Your task to perform on an android device: turn on the 24-hour format for clock Image 0: 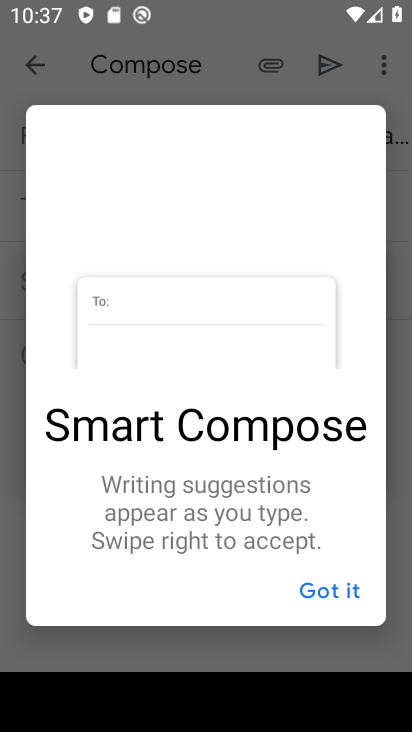
Step 0: press home button
Your task to perform on an android device: turn on the 24-hour format for clock Image 1: 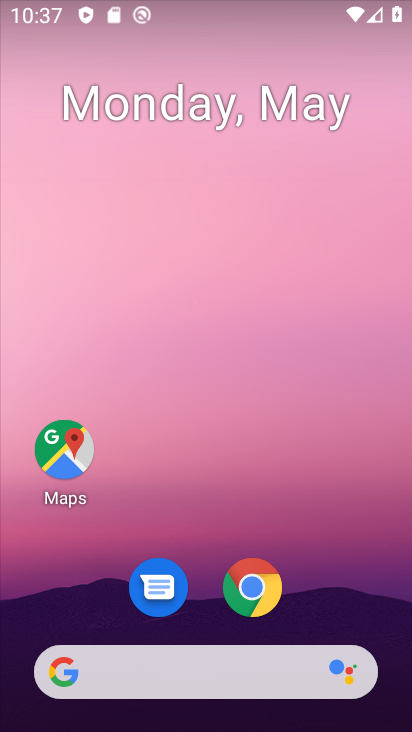
Step 1: drag from (207, 629) to (162, 50)
Your task to perform on an android device: turn on the 24-hour format for clock Image 2: 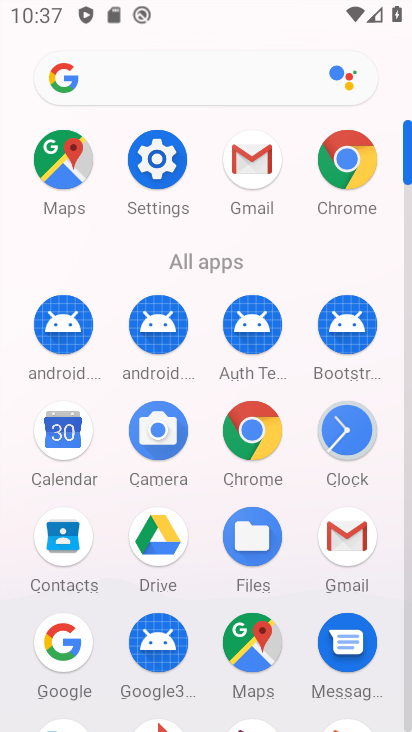
Step 2: click (342, 446)
Your task to perform on an android device: turn on the 24-hour format for clock Image 3: 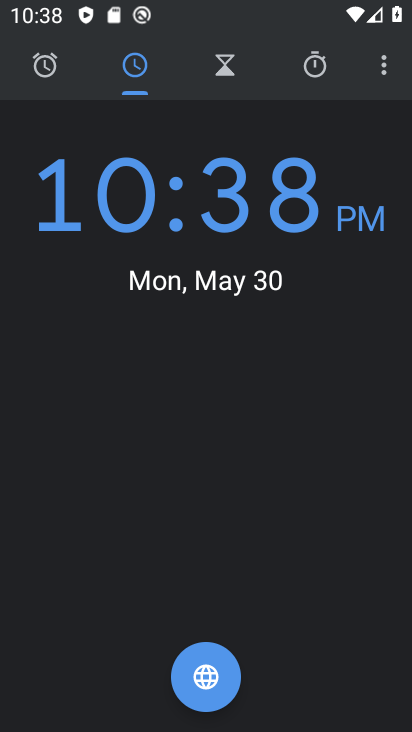
Step 3: click (380, 71)
Your task to perform on an android device: turn on the 24-hour format for clock Image 4: 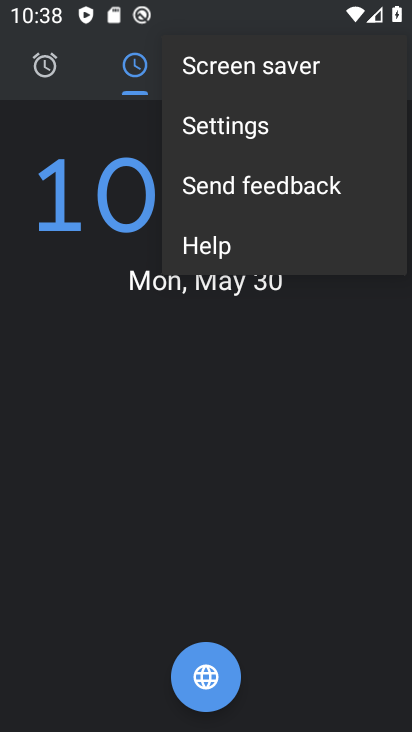
Step 4: click (225, 137)
Your task to perform on an android device: turn on the 24-hour format for clock Image 5: 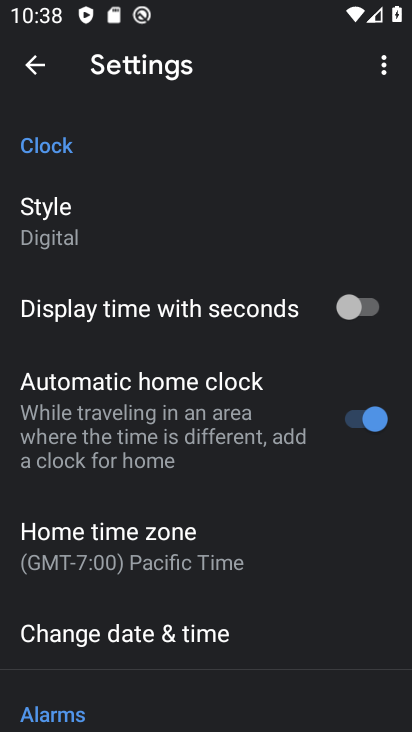
Step 5: click (168, 636)
Your task to perform on an android device: turn on the 24-hour format for clock Image 6: 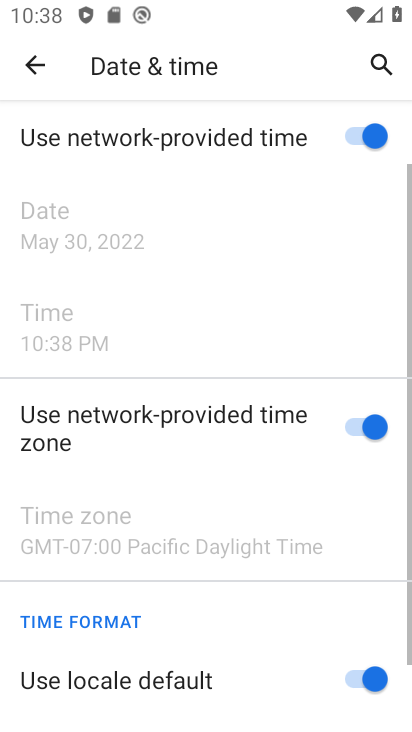
Step 6: drag from (214, 642) to (176, 128)
Your task to perform on an android device: turn on the 24-hour format for clock Image 7: 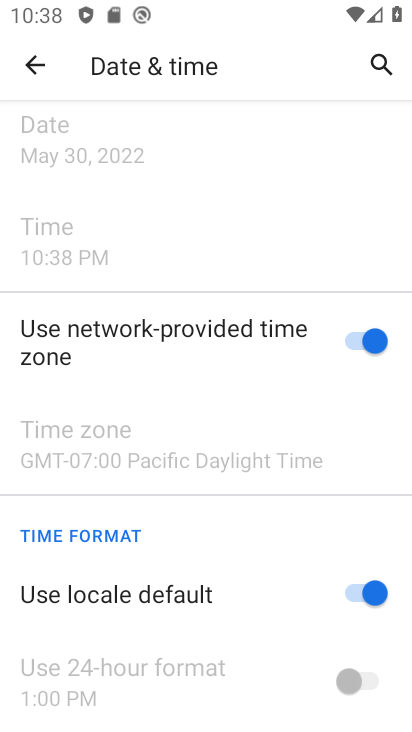
Step 7: click (366, 578)
Your task to perform on an android device: turn on the 24-hour format for clock Image 8: 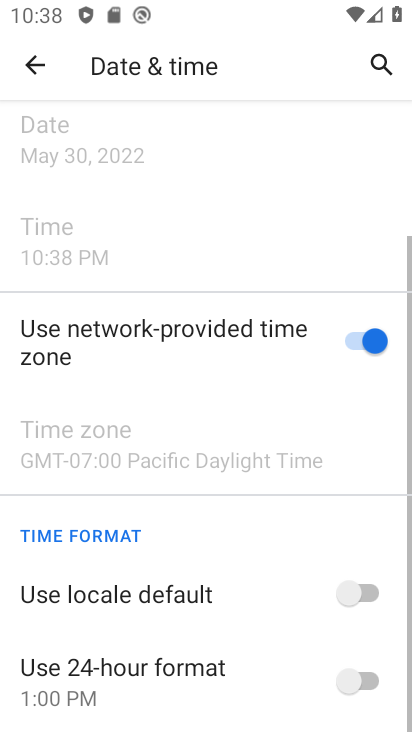
Step 8: click (351, 686)
Your task to perform on an android device: turn on the 24-hour format for clock Image 9: 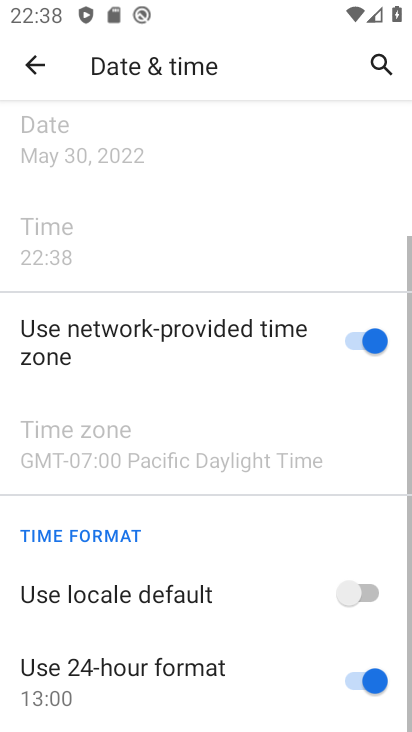
Step 9: task complete